Your task to perform on an android device: Open the map Image 0: 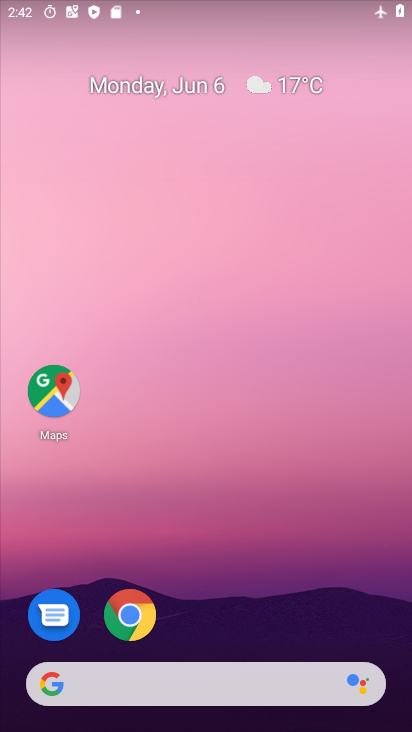
Step 0: click (227, 222)
Your task to perform on an android device: Open the map Image 1: 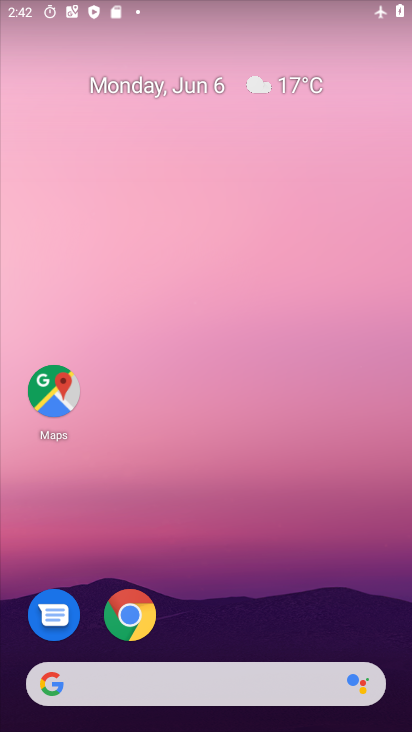
Step 1: press home button
Your task to perform on an android device: Open the map Image 2: 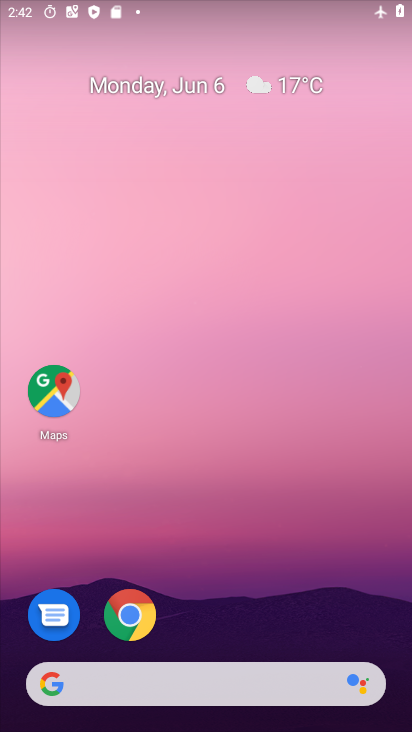
Step 2: drag from (185, 606) to (249, 53)
Your task to perform on an android device: Open the map Image 3: 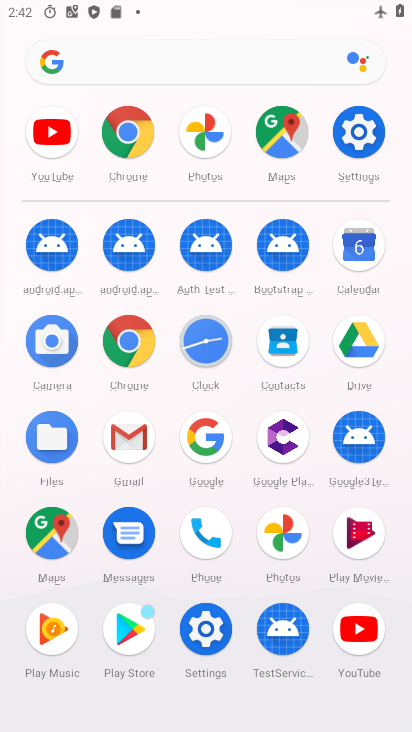
Step 3: click (45, 527)
Your task to perform on an android device: Open the map Image 4: 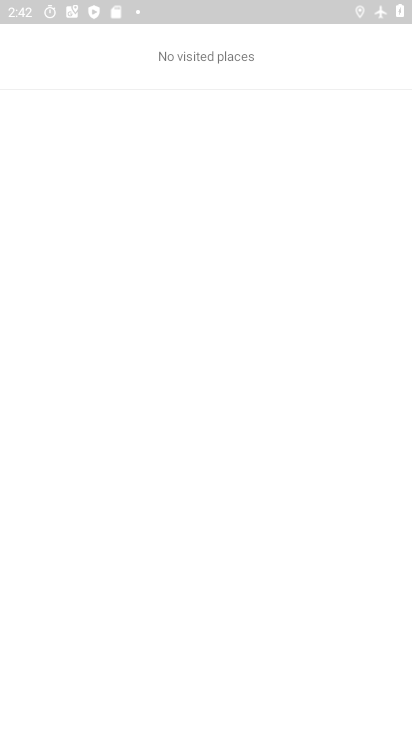
Step 4: click (205, 237)
Your task to perform on an android device: Open the map Image 5: 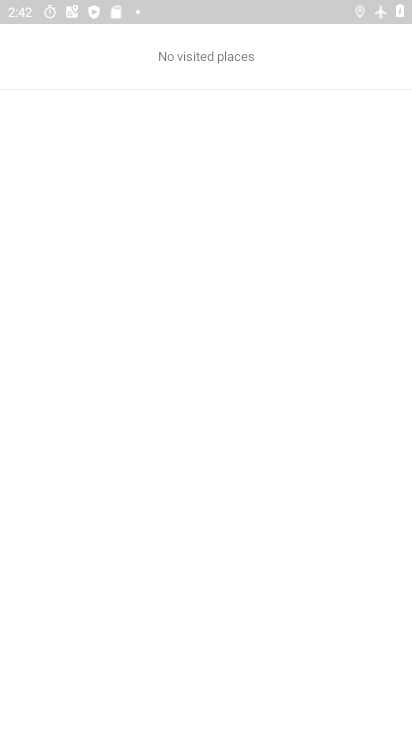
Step 5: task complete